Your task to perform on an android device: turn off sleep mode Image 0: 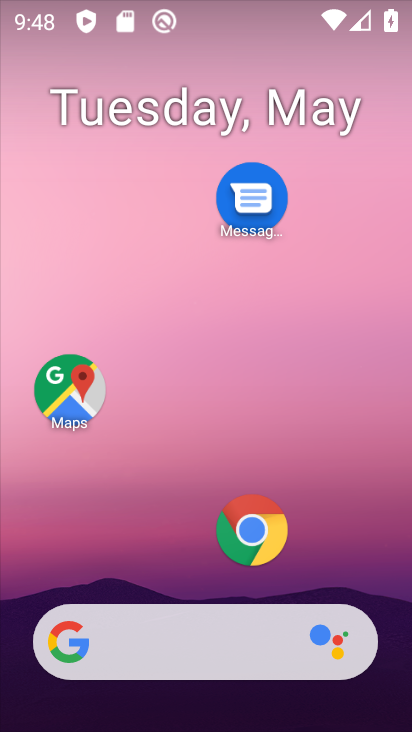
Step 0: drag from (229, 590) to (222, 170)
Your task to perform on an android device: turn off sleep mode Image 1: 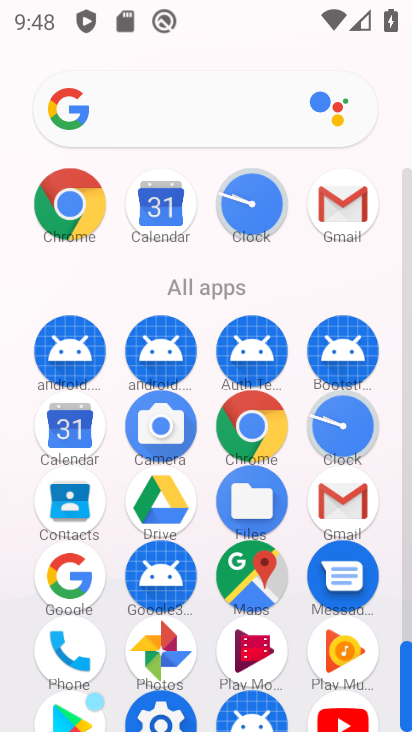
Step 1: task complete